Your task to perform on an android device: Open eBay Image 0: 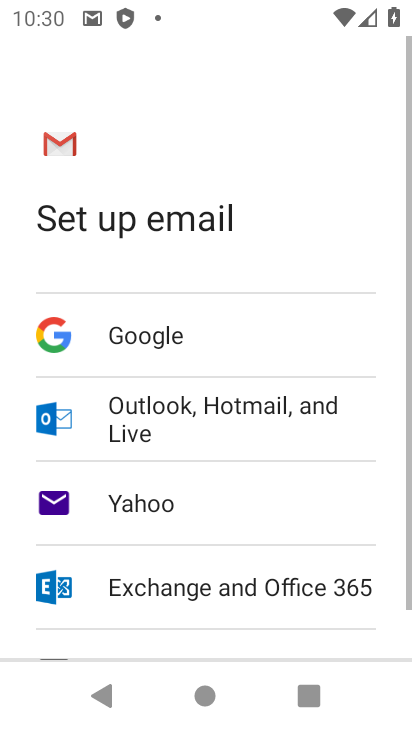
Step 0: press back button
Your task to perform on an android device: Open eBay Image 1: 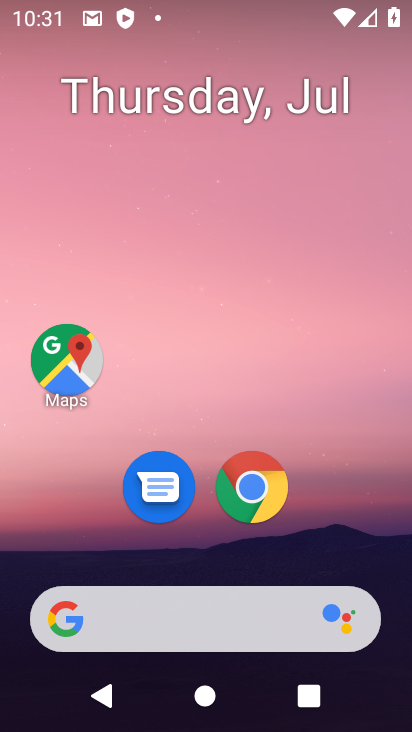
Step 1: click (251, 506)
Your task to perform on an android device: Open eBay Image 2: 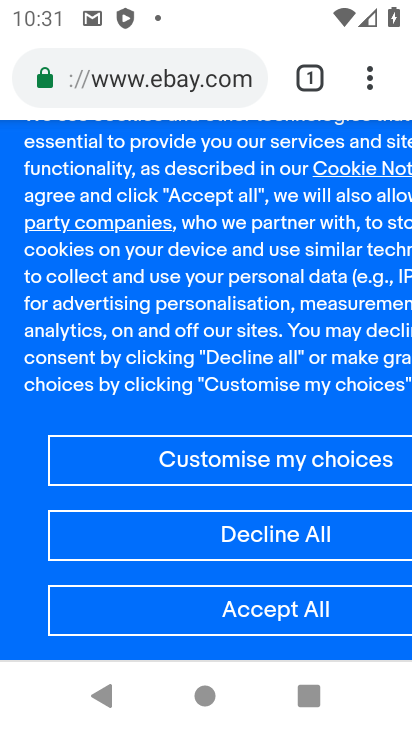
Step 2: task complete